Your task to perform on an android device: check out phone information Image 0: 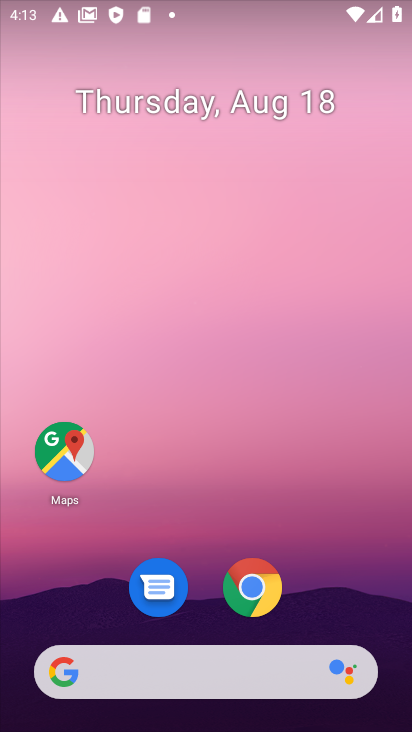
Step 0: drag from (334, 600) to (329, 97)
Your task to perform on an android device: check out phone information Image 1: 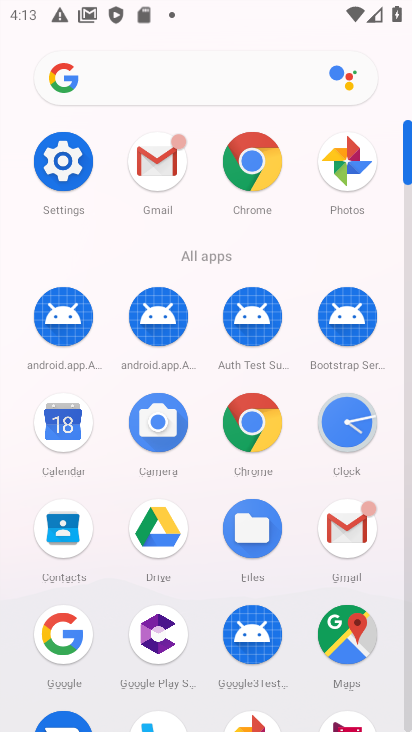
Step 1: drag from (294, 644) to (393, 222)
Your task to perform on an android device: check out phone information Image 2: 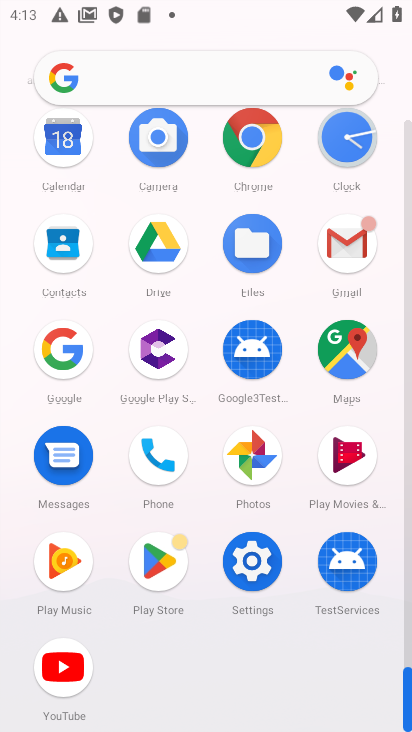
Step 2: click (161, 465)
Your task to perform on an android device: check out phone information Image 3: 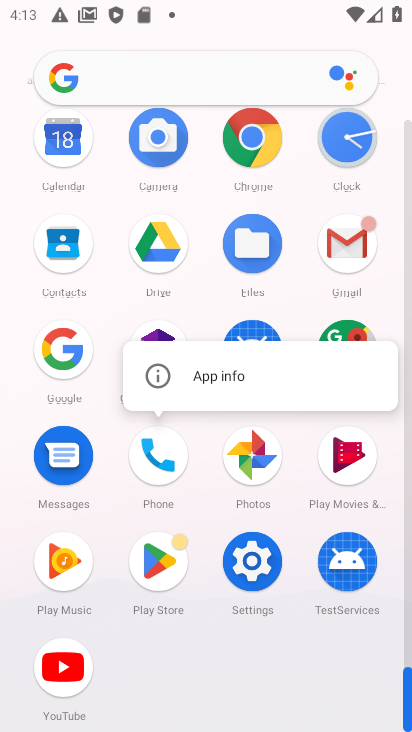
Step 3: click (220, 371)
Your task to perform on an android device: check out phone information Image 4: 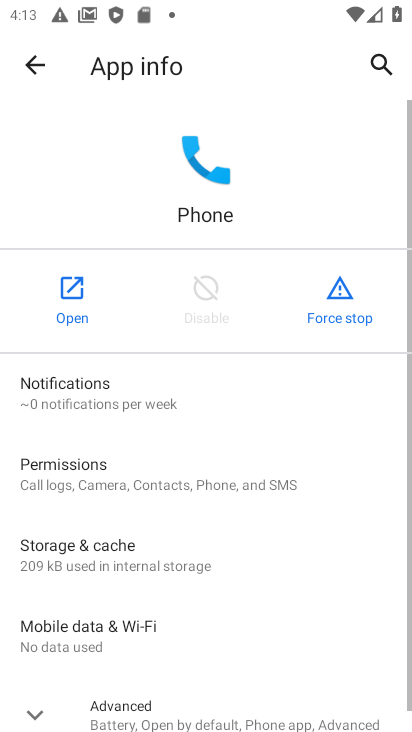
Step 4: task complete